Your task to perform on an android device: toggle show notifications on the lock screen Image 0: 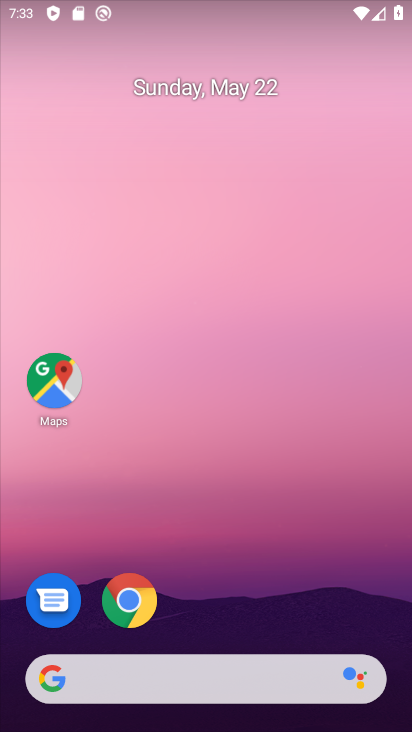
Step 0: drag from (144, 642) to (218, 168)
Your task to perform on an android device: toggle show notifications on the lock screen Image 1: 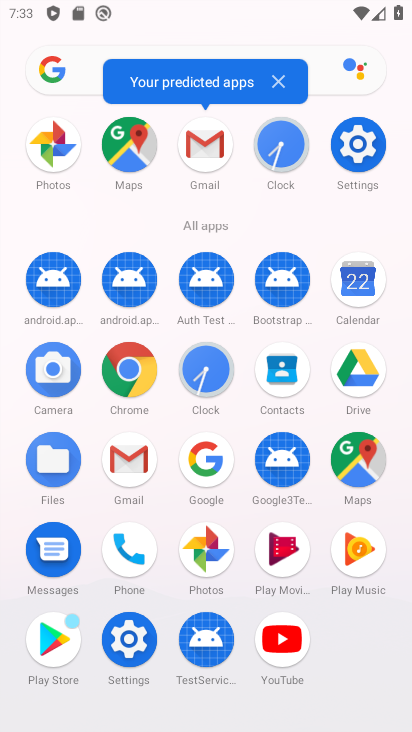
Step 1: click (360, 153)
Your task to perform on an android device: toggle show notifications on the lock screen Image 2: 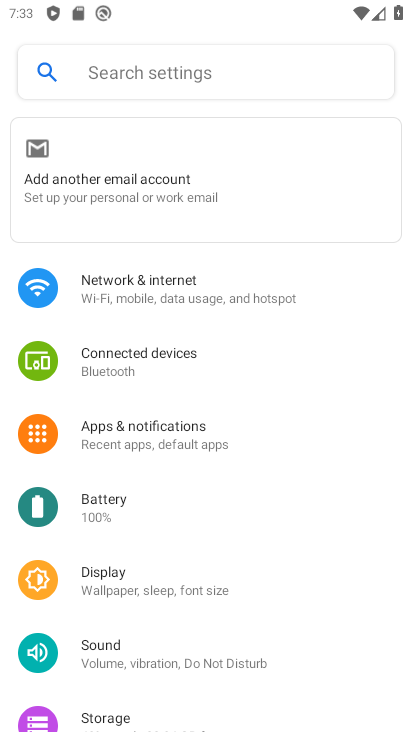
Step 2: click (126, 579)
Your task to perform on an android device: toggle show notifications on the lock screen Image 3: 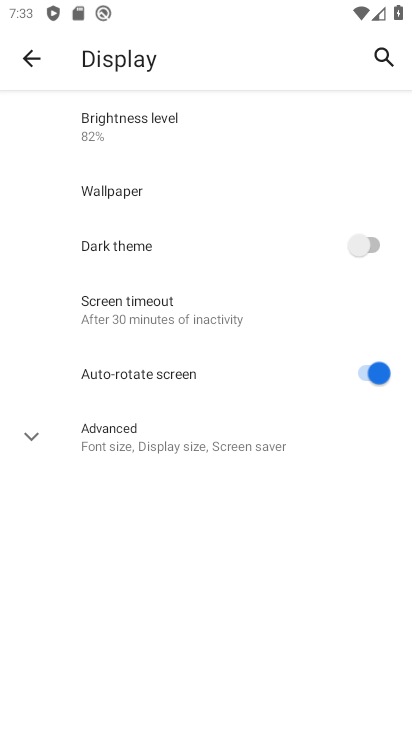
Step 3: click (23, 64)
Your task to perform on an android device: toggle show notifications on the lock screen Image 4: 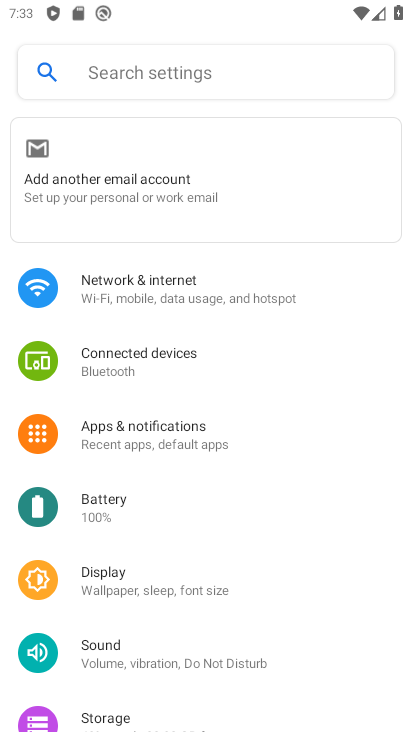
Step 4: drag from (134, 707) to (182, 249)
Your task to perform on an android device: toggle show notifications on the lock screen Image 5: 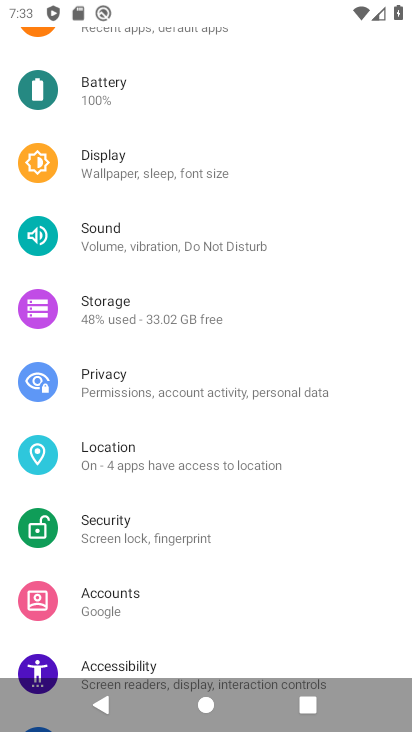
Step 5: click (120, 382)
Your task to perform on an android device: toggle show notifications on the lock screen Image 6: 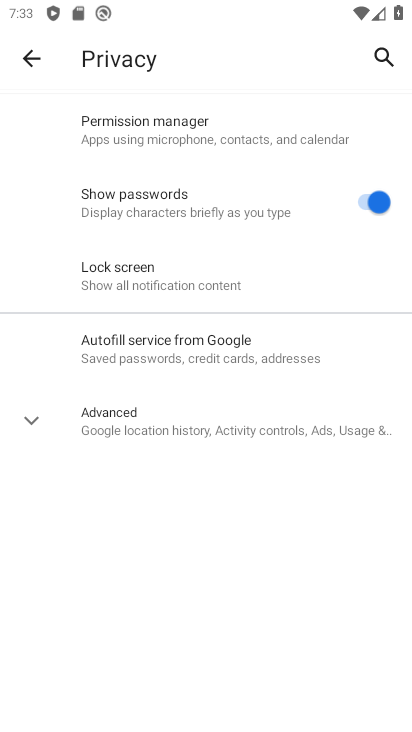
Step 6: click (128, 287)
Your task to perform on an android device: toggle show notifications on the lock screen Image 7: 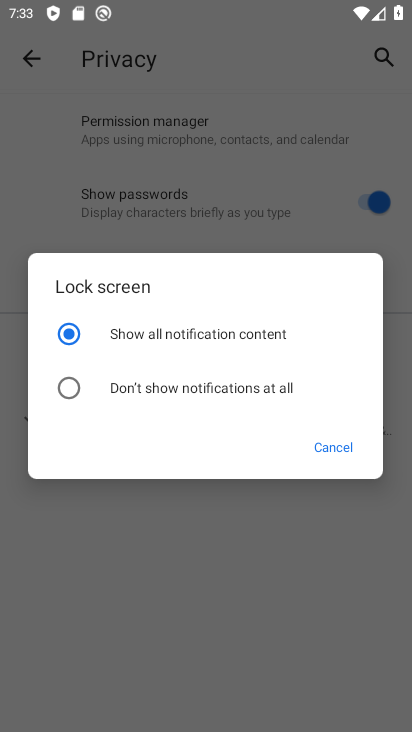
Step 7: click (156, 390)
Your task to perform on an android device: toggle show notifications on the lock screen Image 8: 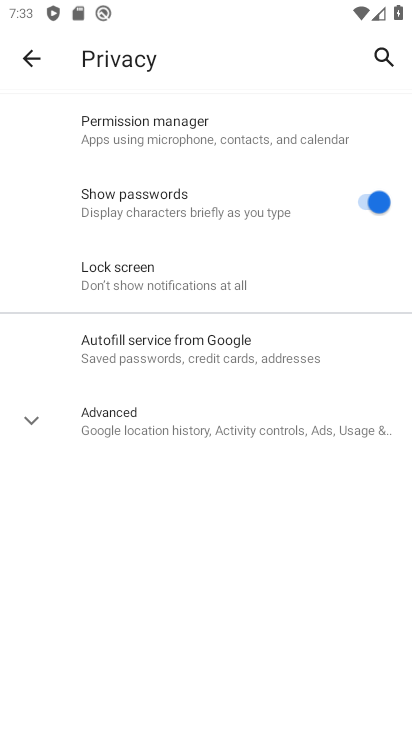
Step 8: task complete